Your task to perform on an android device: Open the calendar and show me this week's events Image 0: 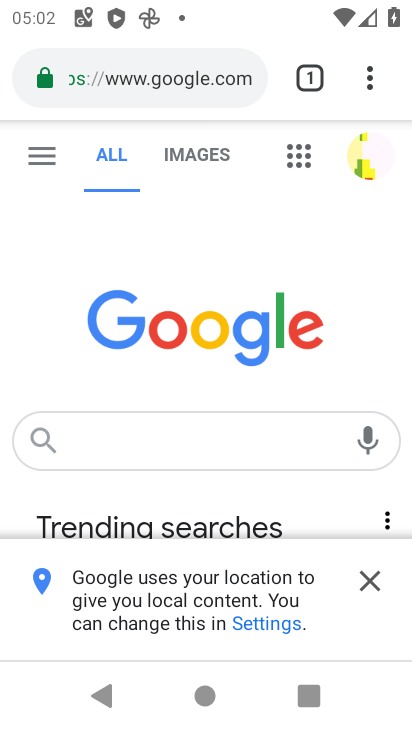
Step 0: press home button
Your task to perform on an android device: Open the calendar and show me this week's events Image 1: 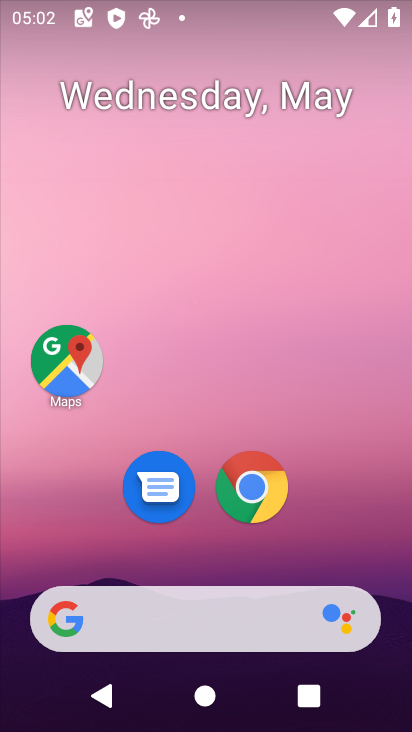
Step 1: drag from (321, 512) to (307, 49)
Your task to perform on an android device: Open the calendar and show me this week's events Image 2: 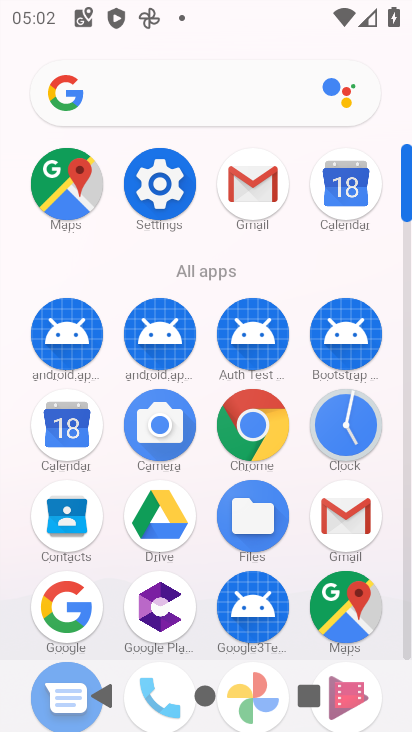
Step 2: click (84, 424)
Your task to perform on an android device: Open the calendar and show me this week's events Image 3: 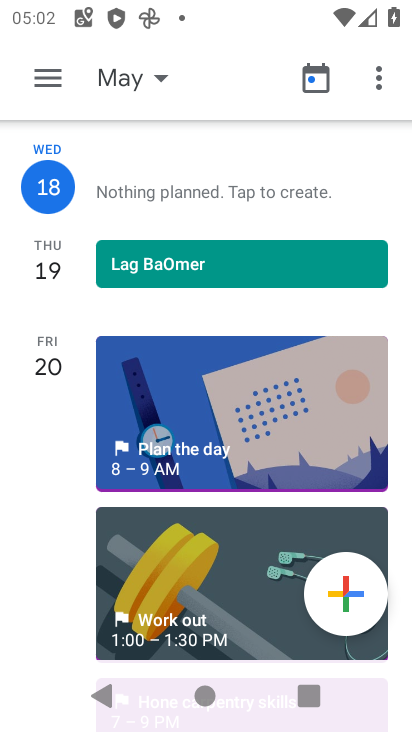
Step 3: click (160, 67)
Your task to perform on an android device: Open the calendar and show me this week's events Image 4: 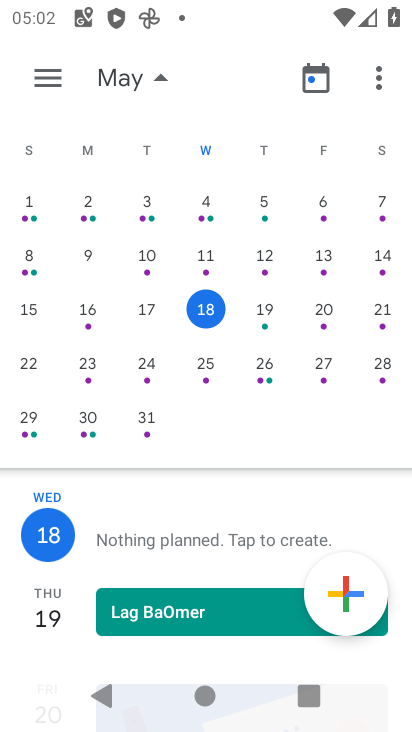
Step 4: click (31, 82)
Your task to perform on an android device: Open the calendar and show me this week's events Image 5: 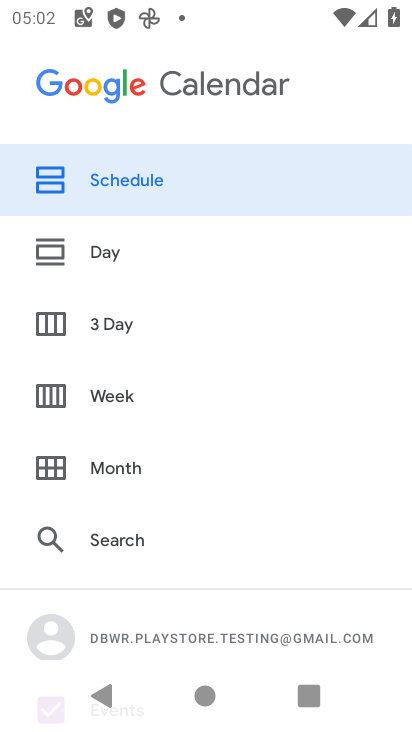
Step 5: click (103, 473)
Your task to perform on an android device: Open the calendar and show me this week's events Image 6: 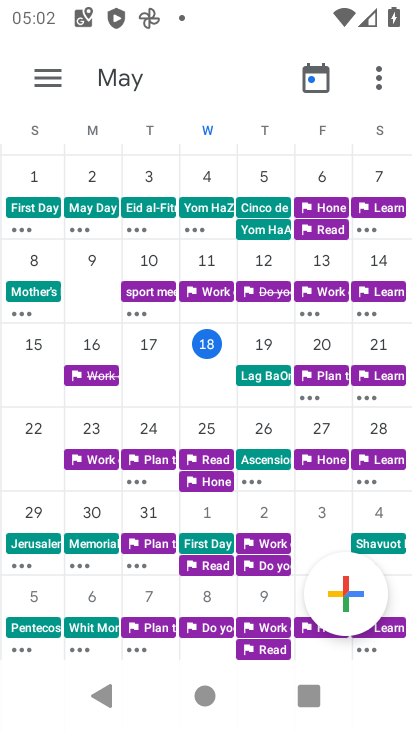
Step 6: task complete